Your task to perform on an android device: Open privacy settings Image 0: 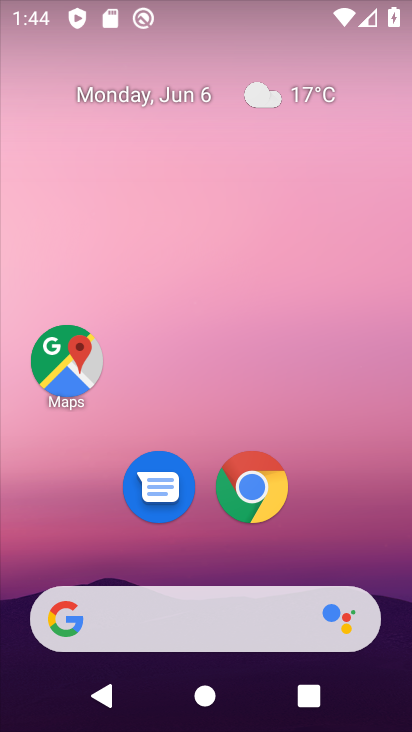
Step 0: drag from (310, 523) to (347, 37)
Your task to perform on an android device: Open privacy settings Image 1: 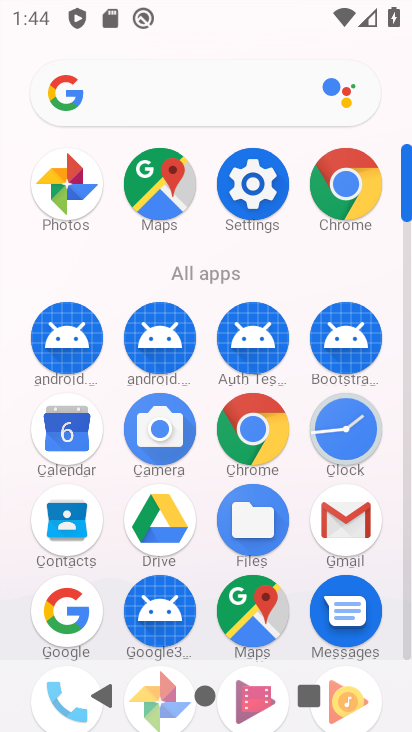
Step 1: drag from (193, 351) to (182, 36)
Your task to perform on an android device: Open privacy settings Image 2: 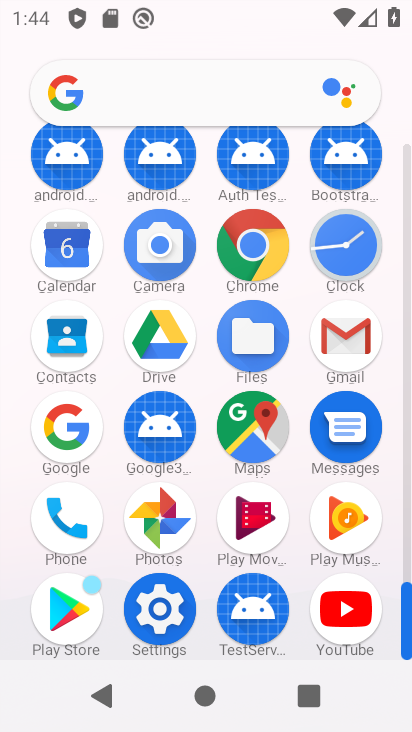
Step 2: click (140, 587)
Your task to perform on an android device: Open privacy settings Image 3: 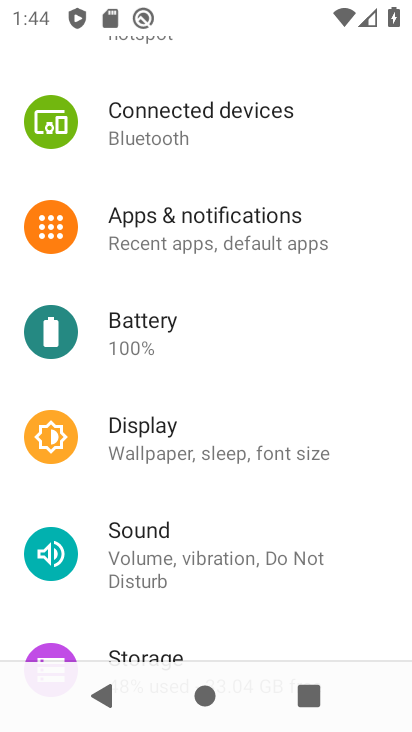
Step 3: drag from (214, 586) to (225, 282)
Your task to perform on an android device: Open privacy settings Image 4: 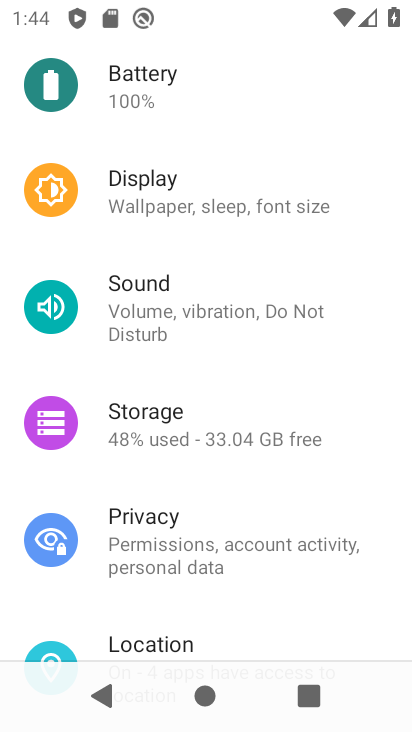
Step 4: click (187, 546)
Your task to perform on an android device: Open privacy settings Image 5: 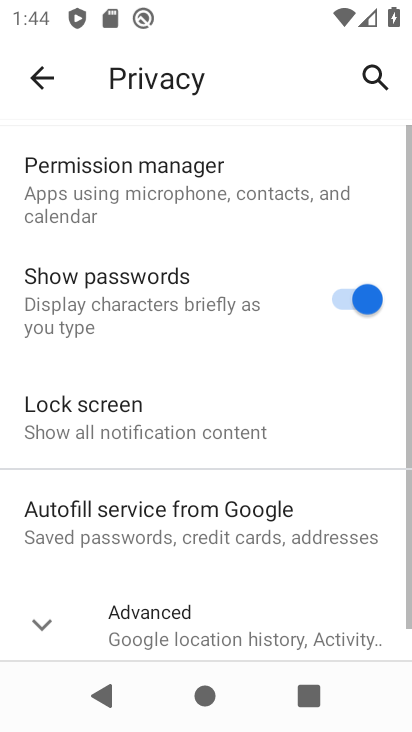
Step 5: task complete